Your task to perform on an android device: open app "DoorDash - Dasher" Image 0: 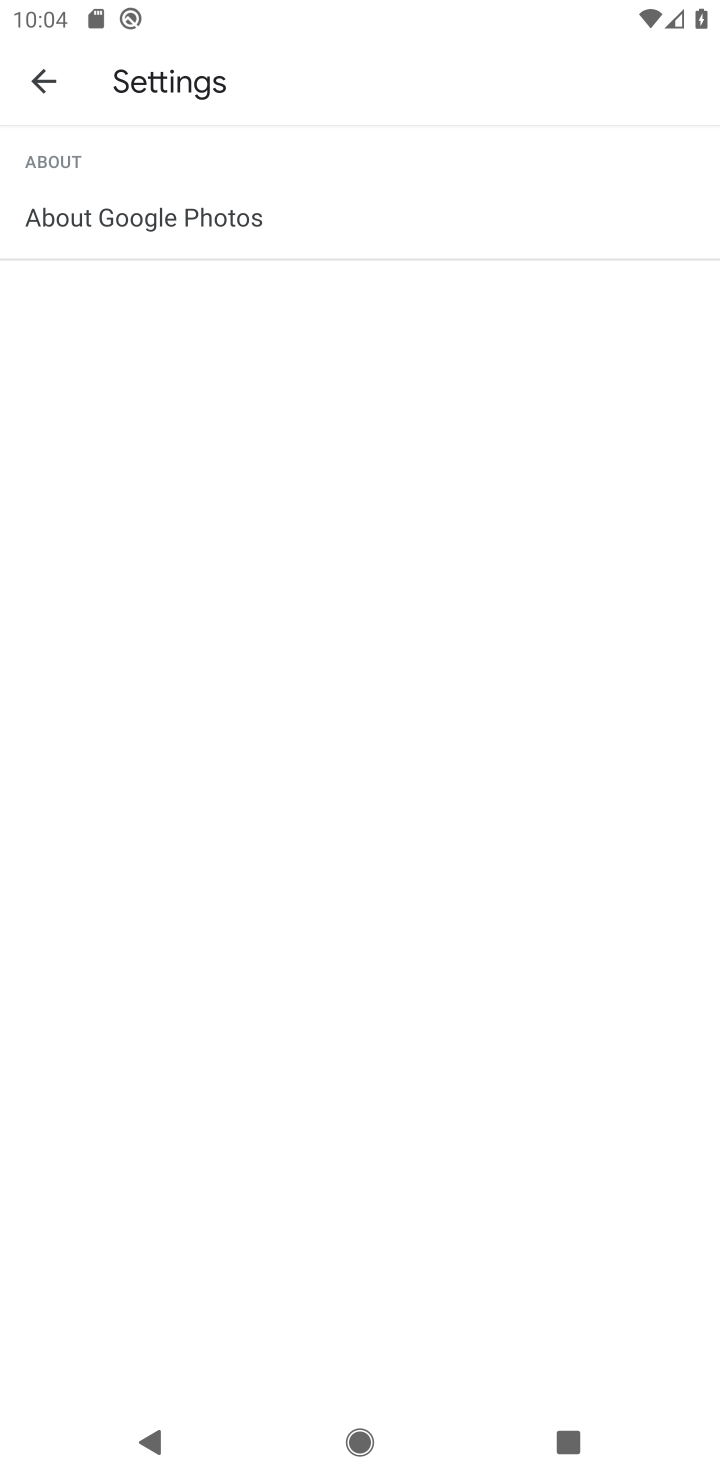
Step 0: press home button
Your task to perform on an android device: open app "DoorDash - Dasher" Image 1: 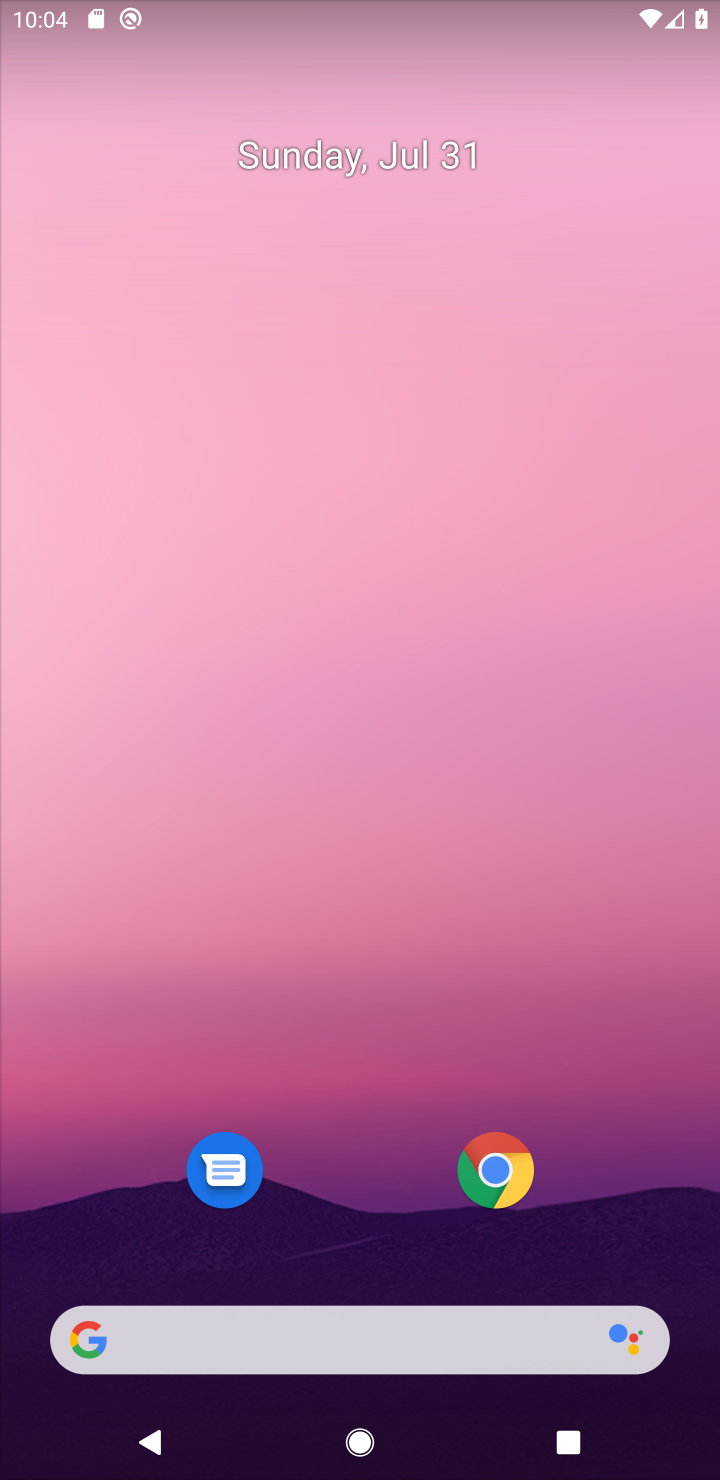
Step 1: drag from (654, 1222) to (532, 44)
Your task to perform on an android device: open app "DoorDash - Dasher" Image 2: 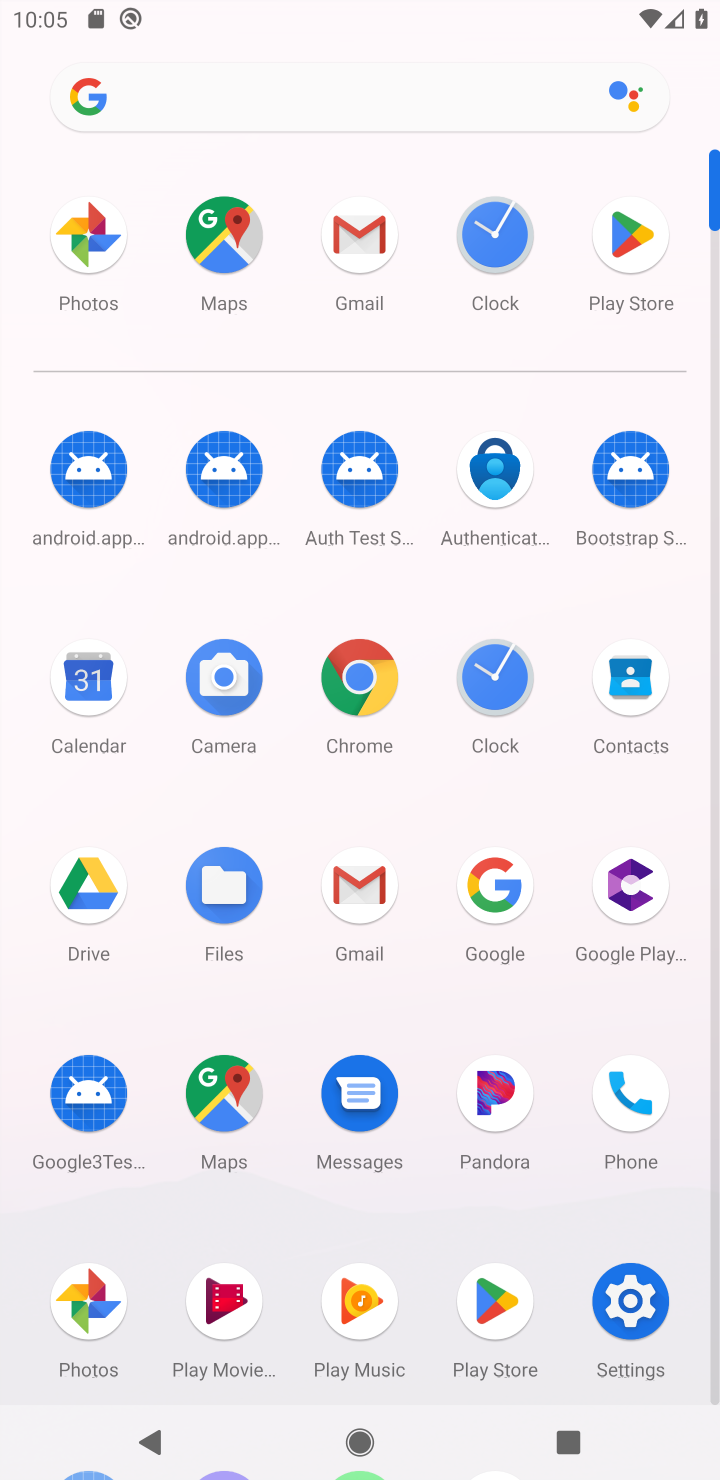
Step 2: click (598, 263)
Your task to perform on an android device: open app "DoorDash - Dasher" Image 3: 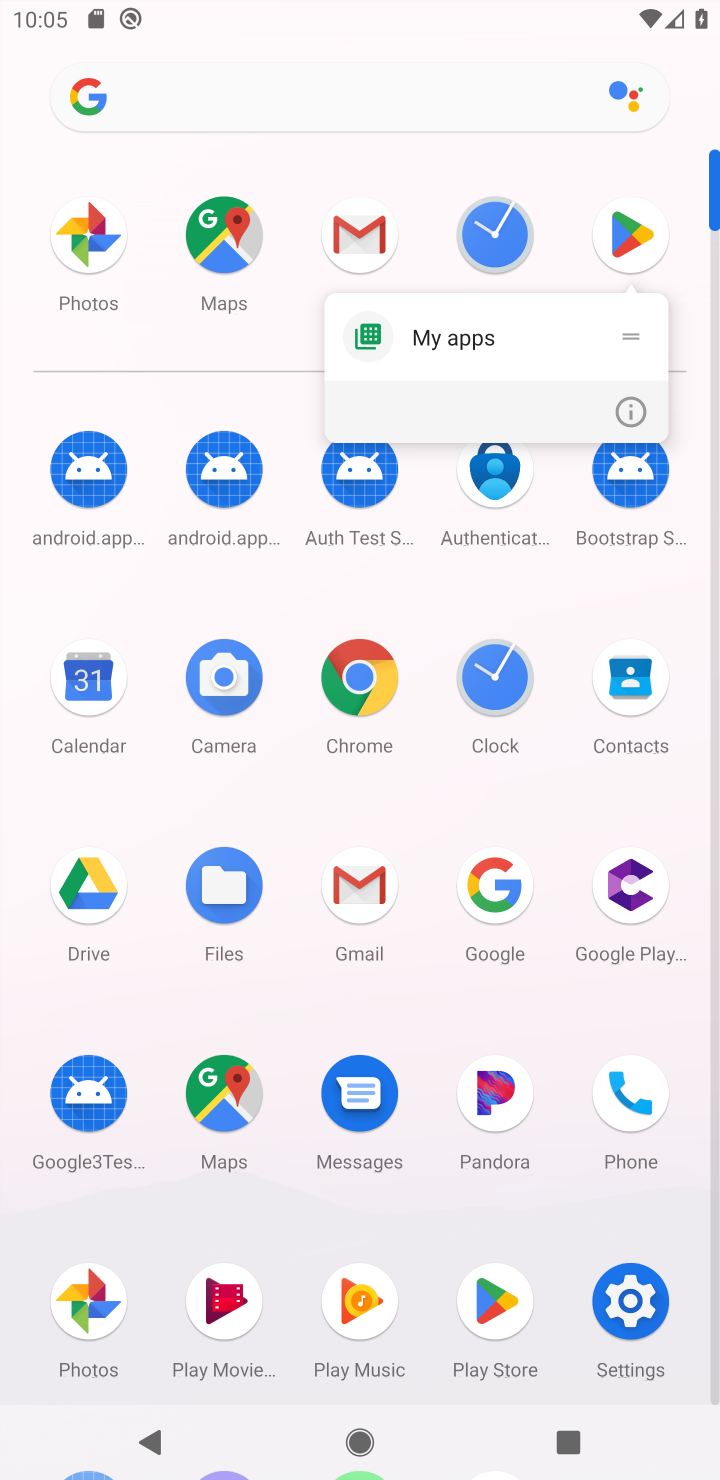
Step 3: click (633, 215)
Your task to perform on an android device: open app "DoorDash - Dasher" Image 4: 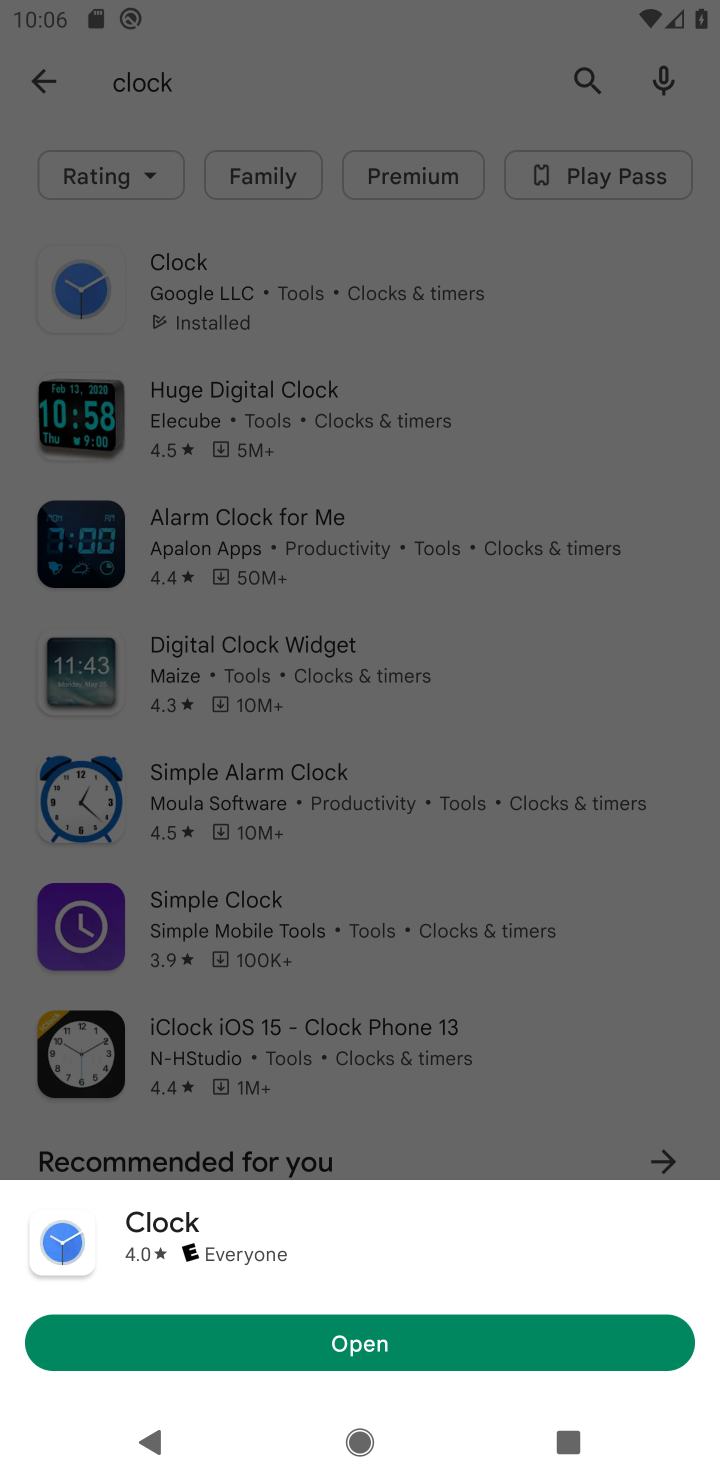
Step 4: press back button
Your task to perform on an android device: open app "DoorDash - Dasher" Image 5: 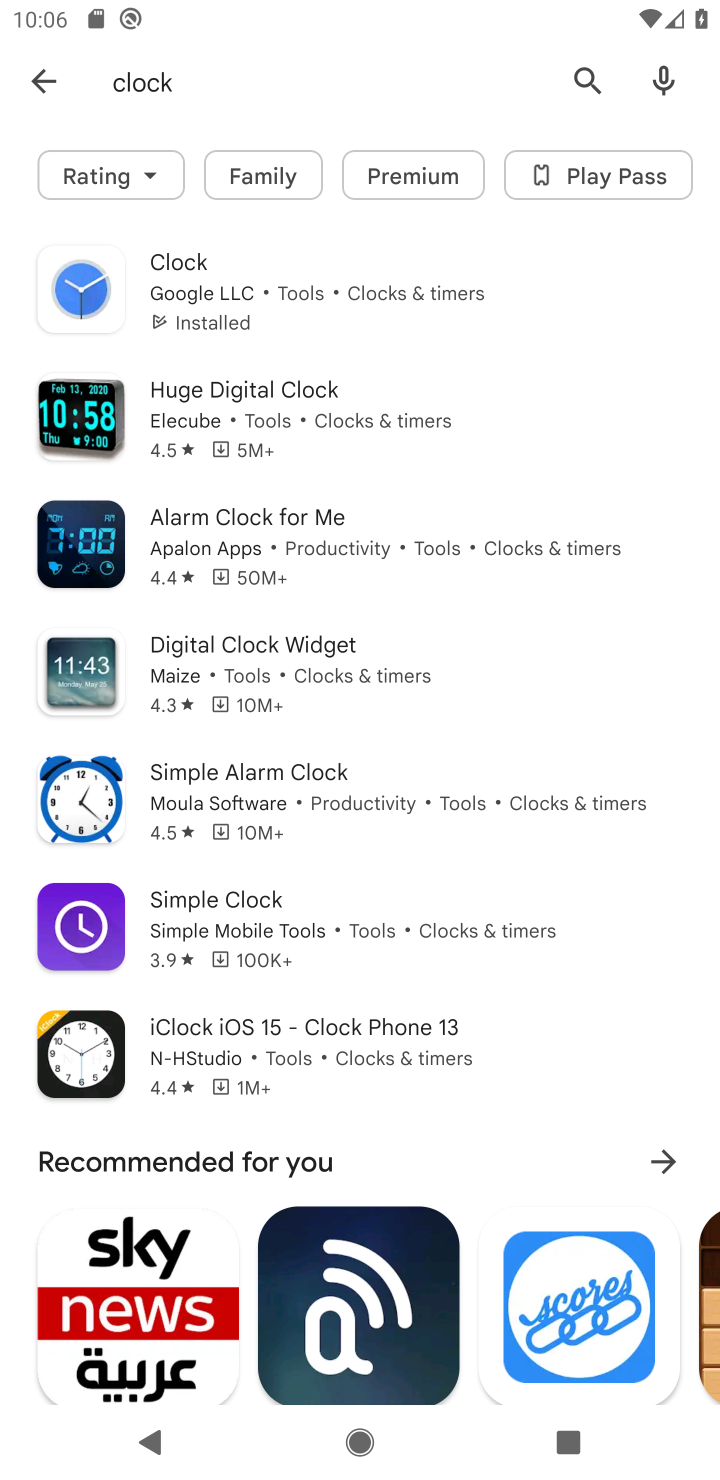
Step 5: press back button
Your task to perform on an android device: open app "DoorDash - Dasher" Image 6: 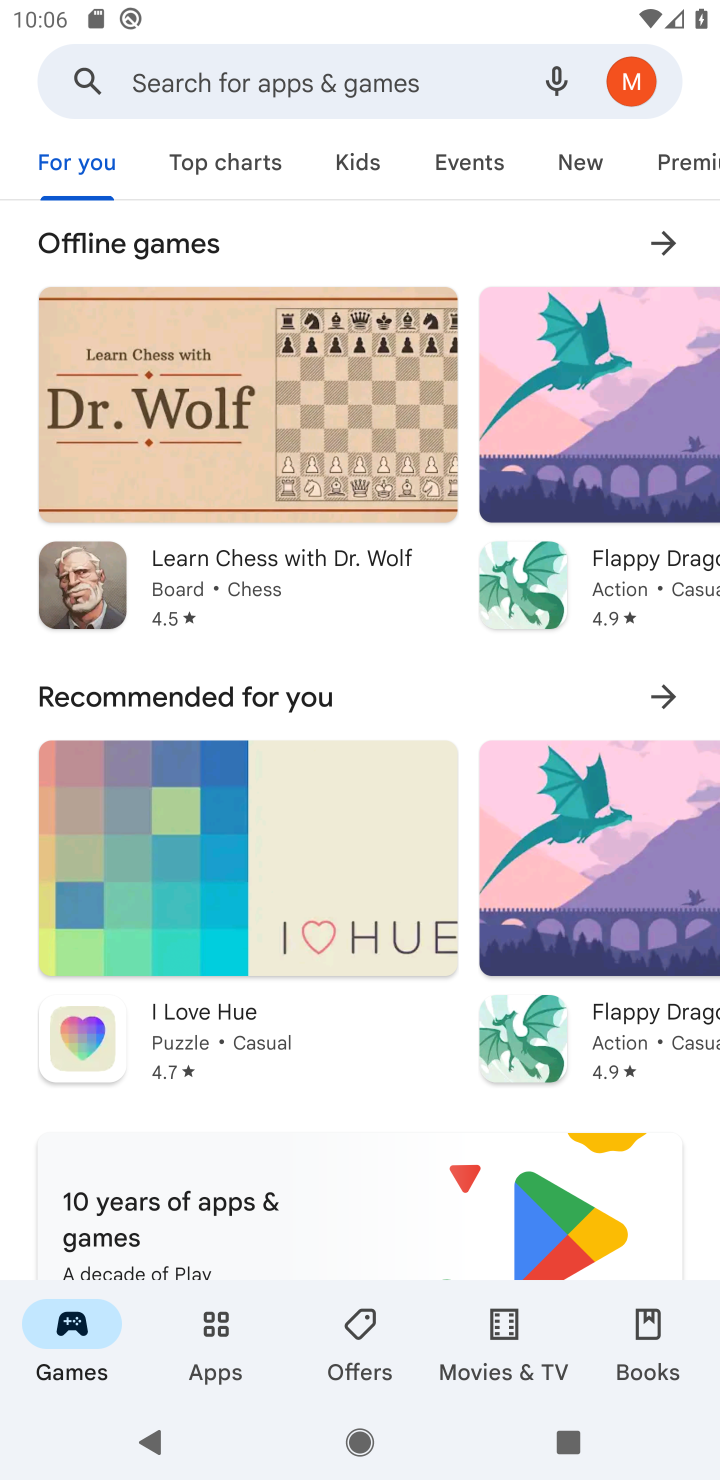
Step 6: click (201, 79)
Your task to perform on an android device: open app "DoorDash - Dasher" Image 7: 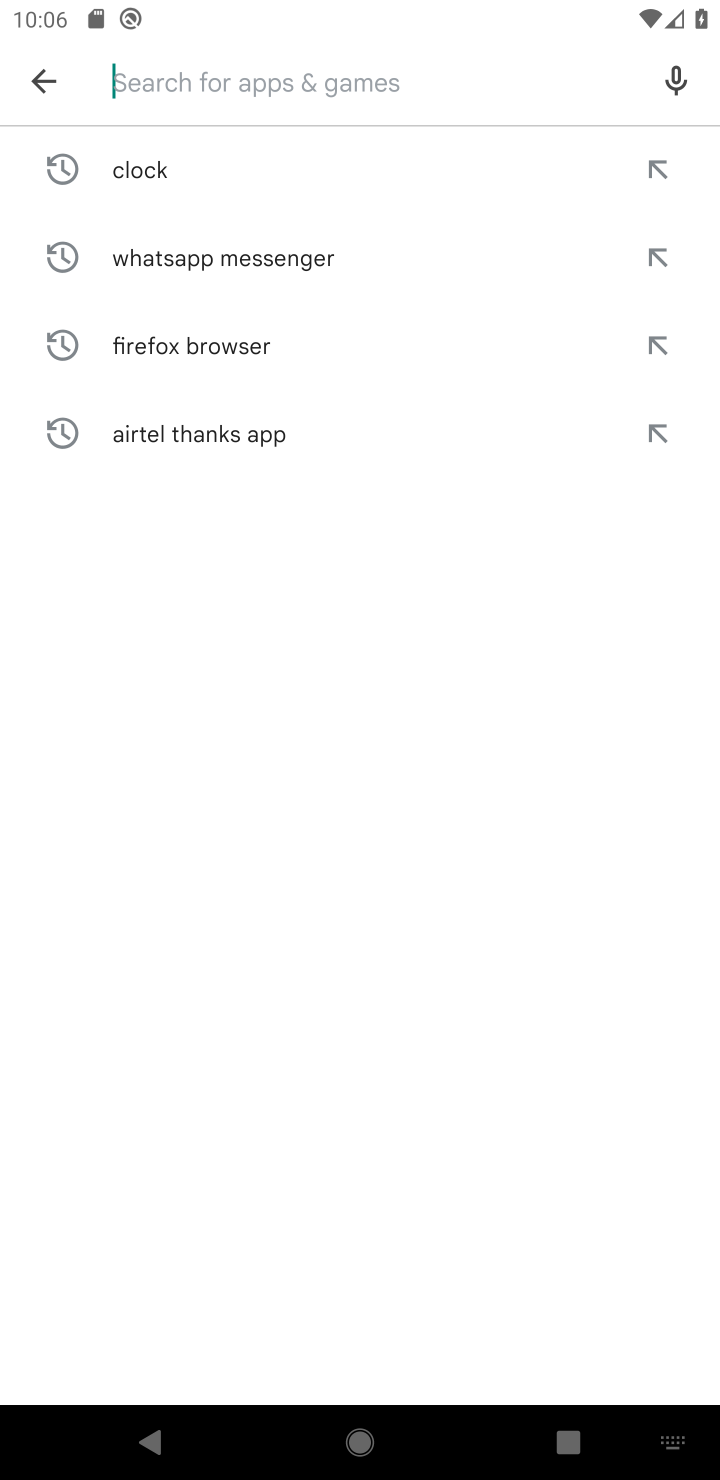
Step 7: type "DoorDash - Dasher"
Your task to perform on an android device: open app "DoorDash - Dasher" Image 8: 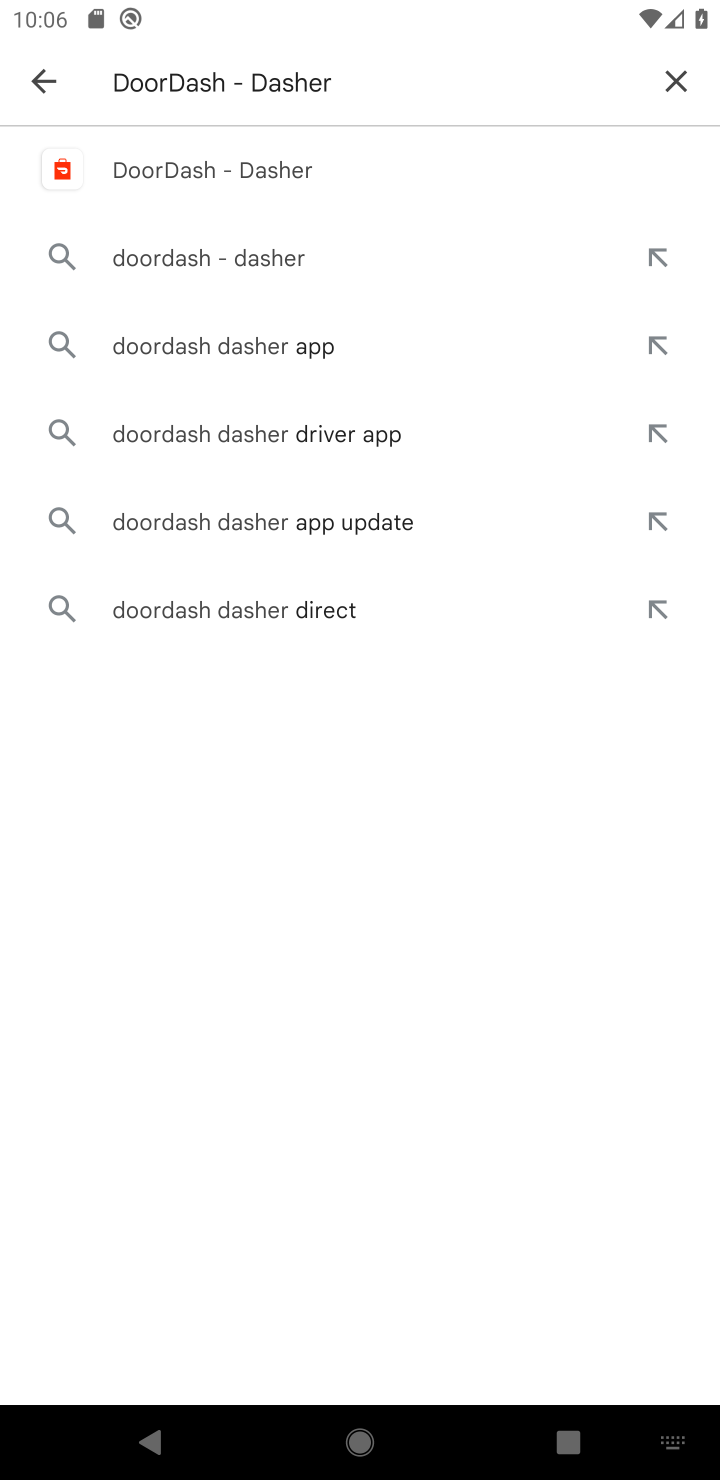
Step 8: click (210, 168)
Your task to perform on an android device: open app "DoorDash - Dasher" Image 9: 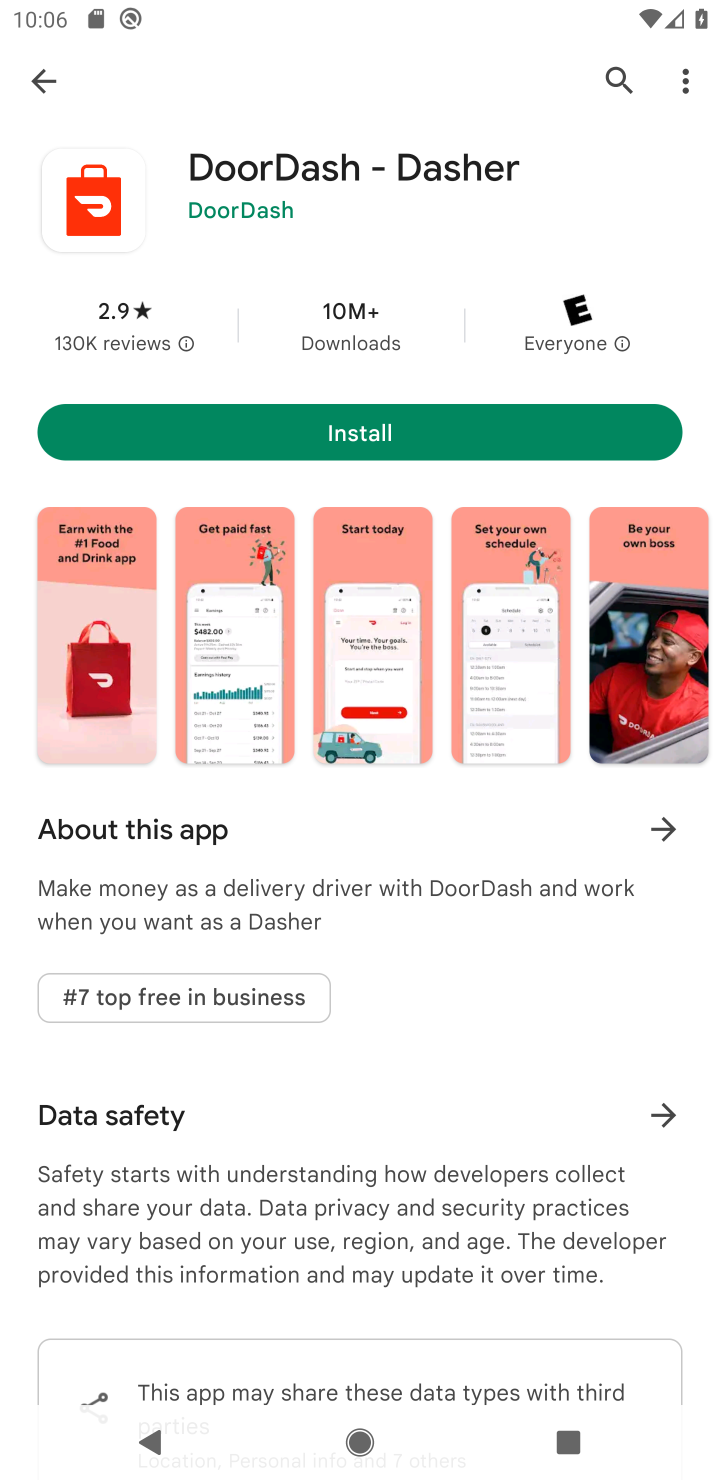
Step 9: task complete